Your task to perform on an android device: Go to network settings Image 0: 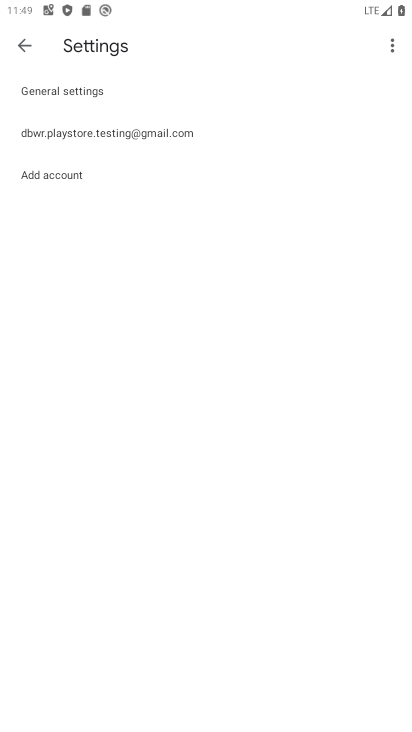
Step 0: press home button
Your task to perform on an android device: Go to network settings Image 1: 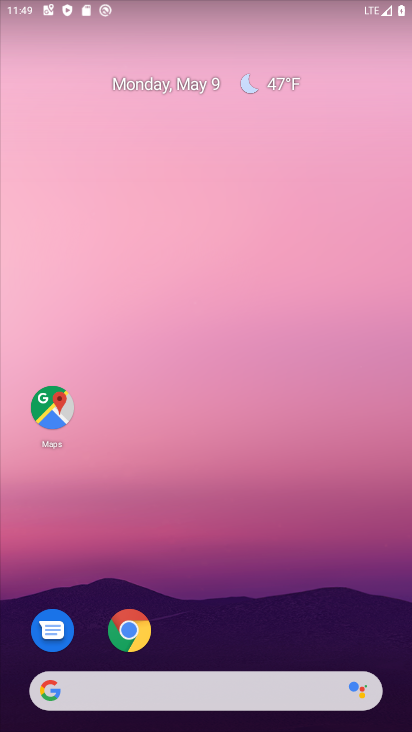
Step 1: drag from (187, 691) to (310, 110)
Your task to perform on an android device: Go to network settings Image 2: 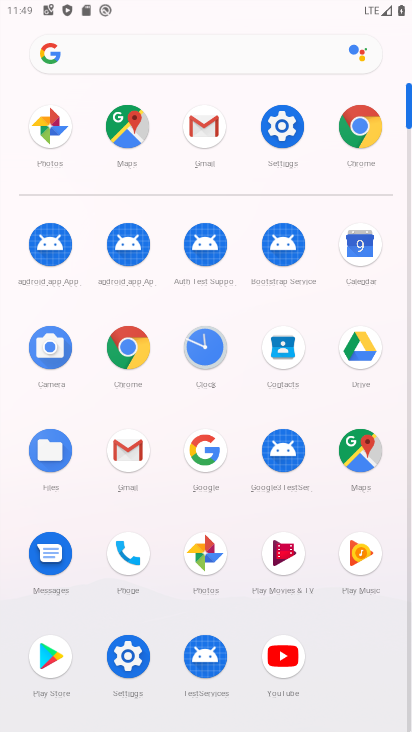
Step 2: click (286, 130)
Your task to perform on an android device: Go to network settings Image 3: 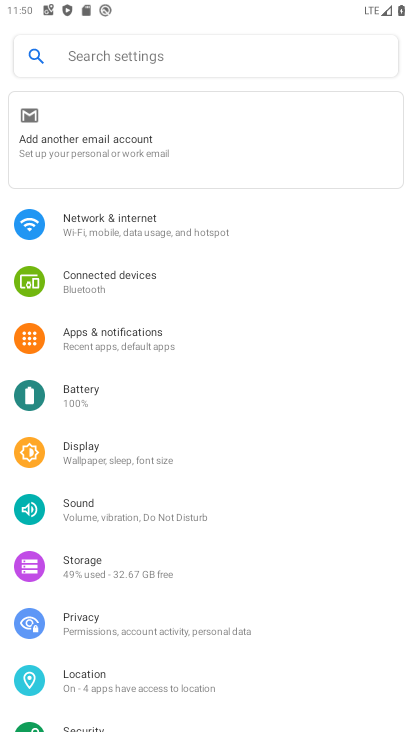
Step 3: click (137, 225)
Your task to perform on an android device: Go to network settings Image 4: 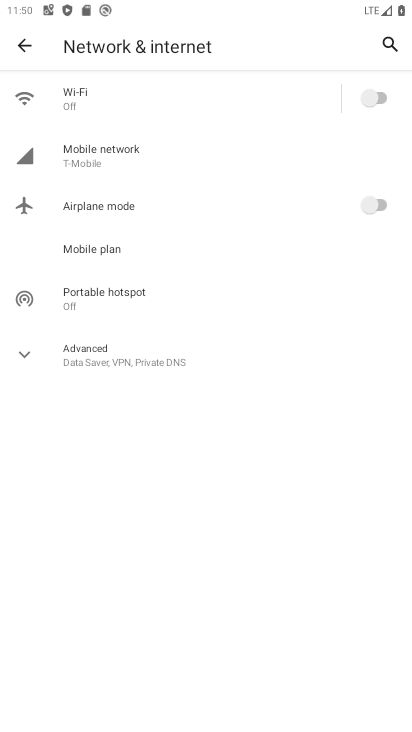
Step 4: task complete